Your task to perform on an android device: Search for Italian restaurants on Maps Image 0: 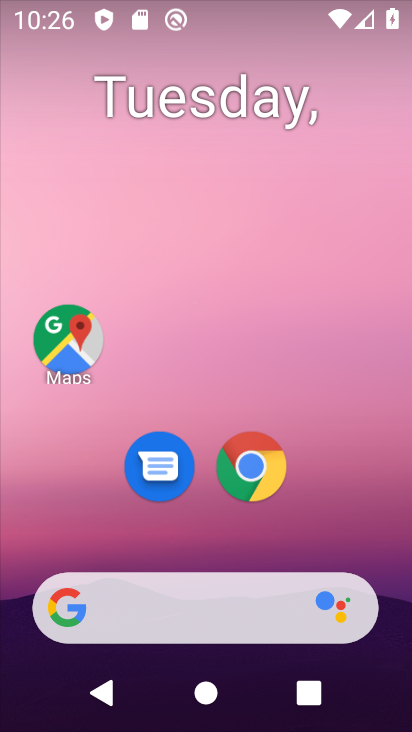
Step 0: click (70, 358)
Your task to perform on an android device: Search for Italian restaurants on Maps Image 1: 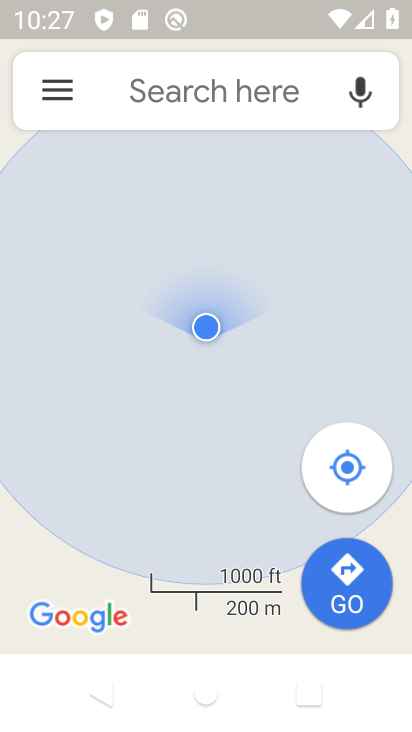
Step 1: click (197, 81)
Your task to perform on an android device: Search for Italian restaurants on Maps Image 2: 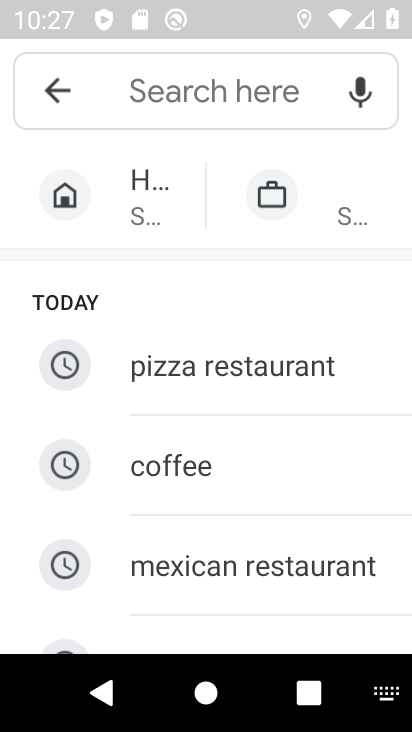
Step 2: type "Italian restaurants"
Your task to perform on an android device: Search for Italian restaurants on Maps Image 3: 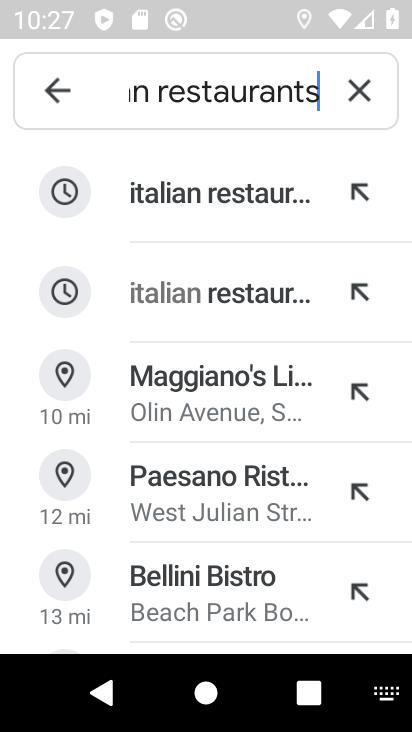
Step 3: click (226, 217)
Your task to perform on an android device: Search for Italian restaurants on Maps Image 4: 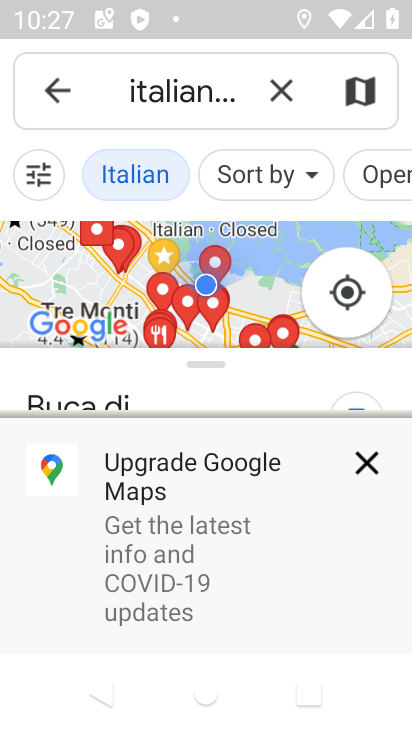
Step 4: click (368, 473)
Your task to perform on an android device: Search for Italian restaurants on Maps Image 5: 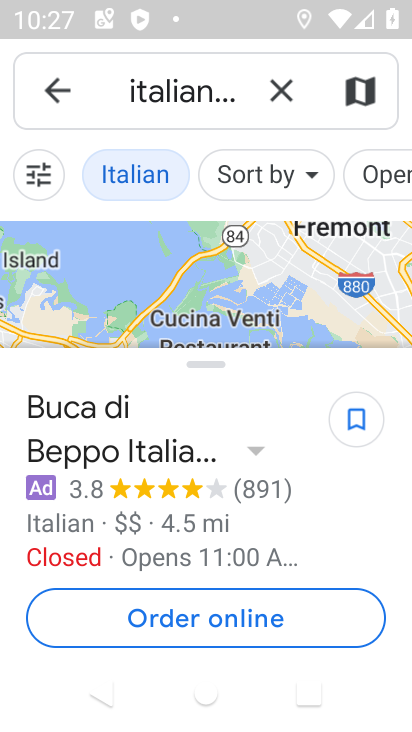
Step 5: task complete